Your task to perform on an android device: open app "Truecaller" (install if not already installed) and enter user name: "coauthor@gmail.com" and password: "quadrangle" Image 0: 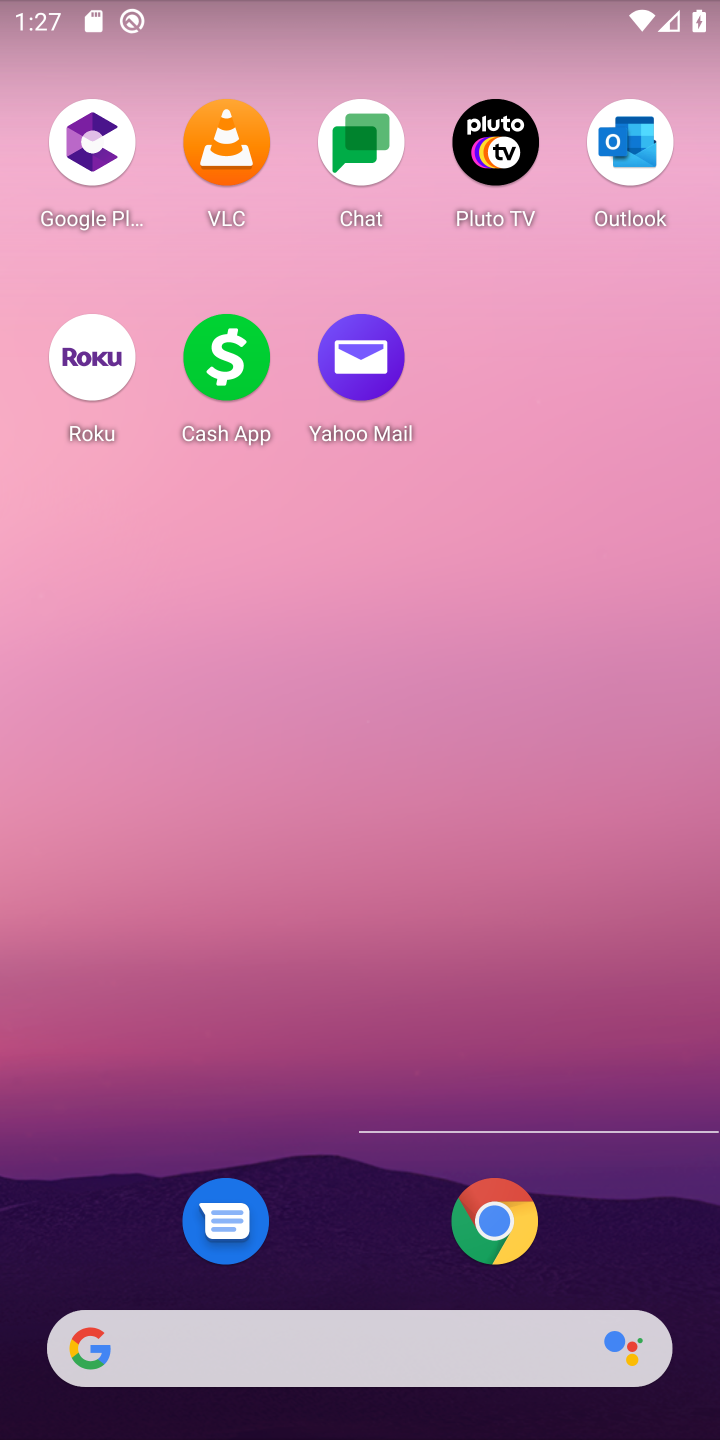
Step 0: press home button
Your task to perform on an android device: open app "Truecaller" (install if not already installed) and enter user name: "coauthor@gmail.com" and password: "quadrangle" Image 1: 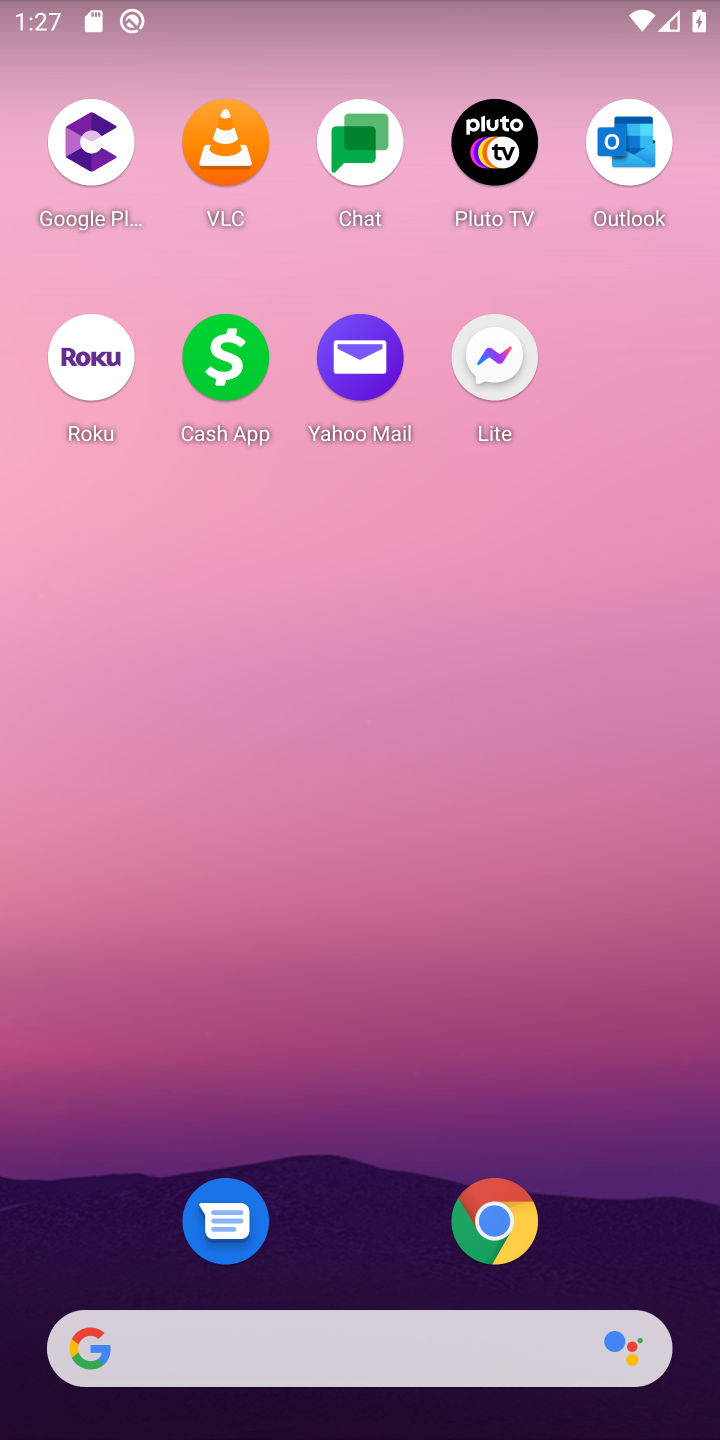
Step 1: press home button
Your task to perform on an android device: open app "Truecaller" (install if not already installed) and enter user name: "coauthor@gmail.com" and password: "quadrangle" Image 2: 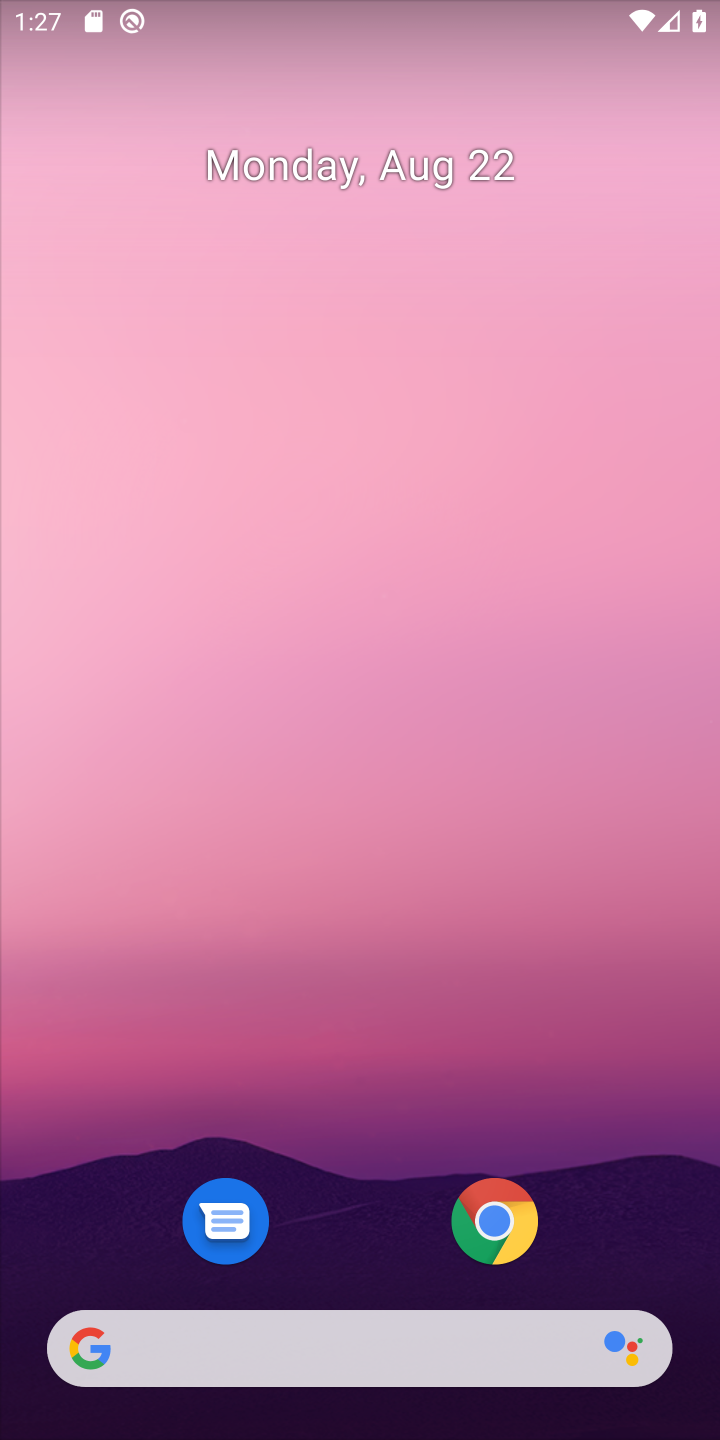
Step 2: drag from (353, 1244) to (270, 22)
Your task to perform on an android device: open app "Truecaller" (install if not already installed) and enter user name: "coauthor@gmail.com" and password: "quadrangle" Image 3: 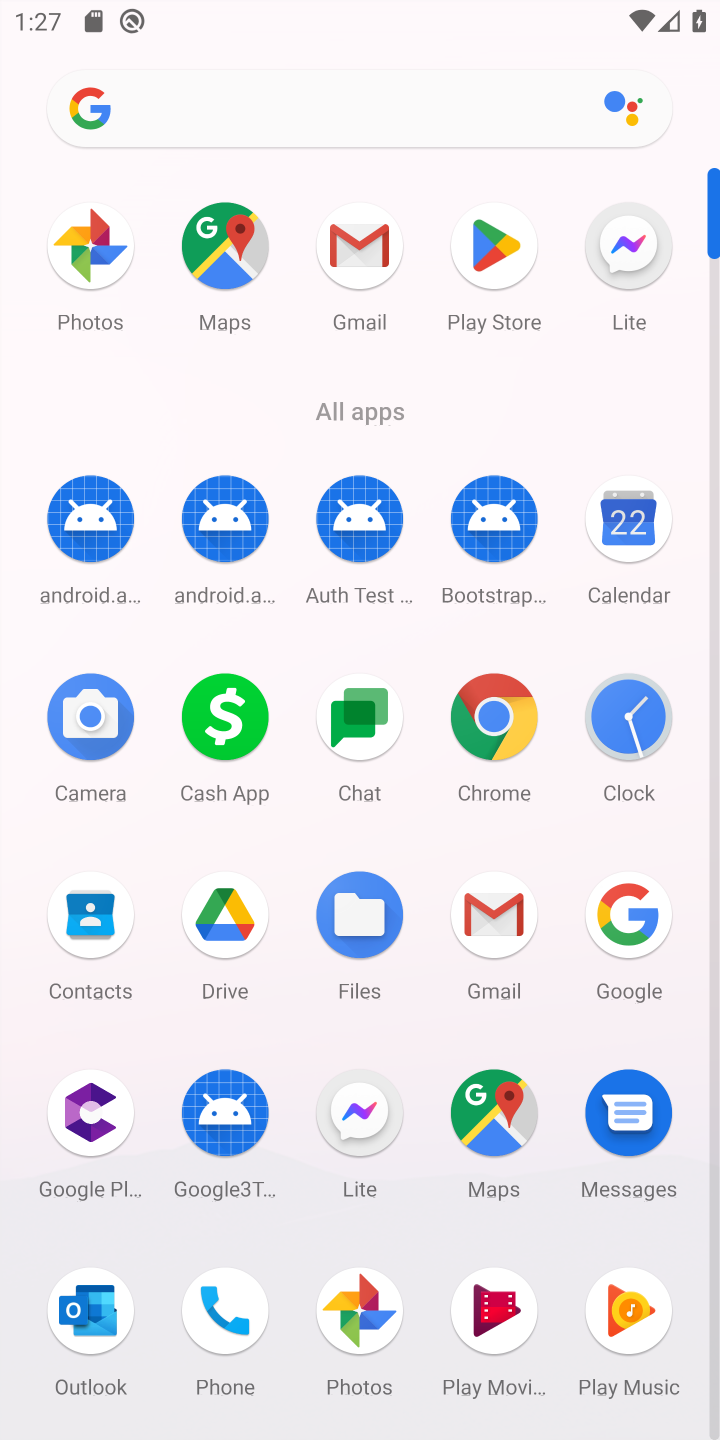
Step 3: click (490, 240)
Your task to perform on an android device: open app "Truecaller" (install if not already installed) and enter user name: "coauthor@gmail.com" and password: "quadrangle" Image 4: 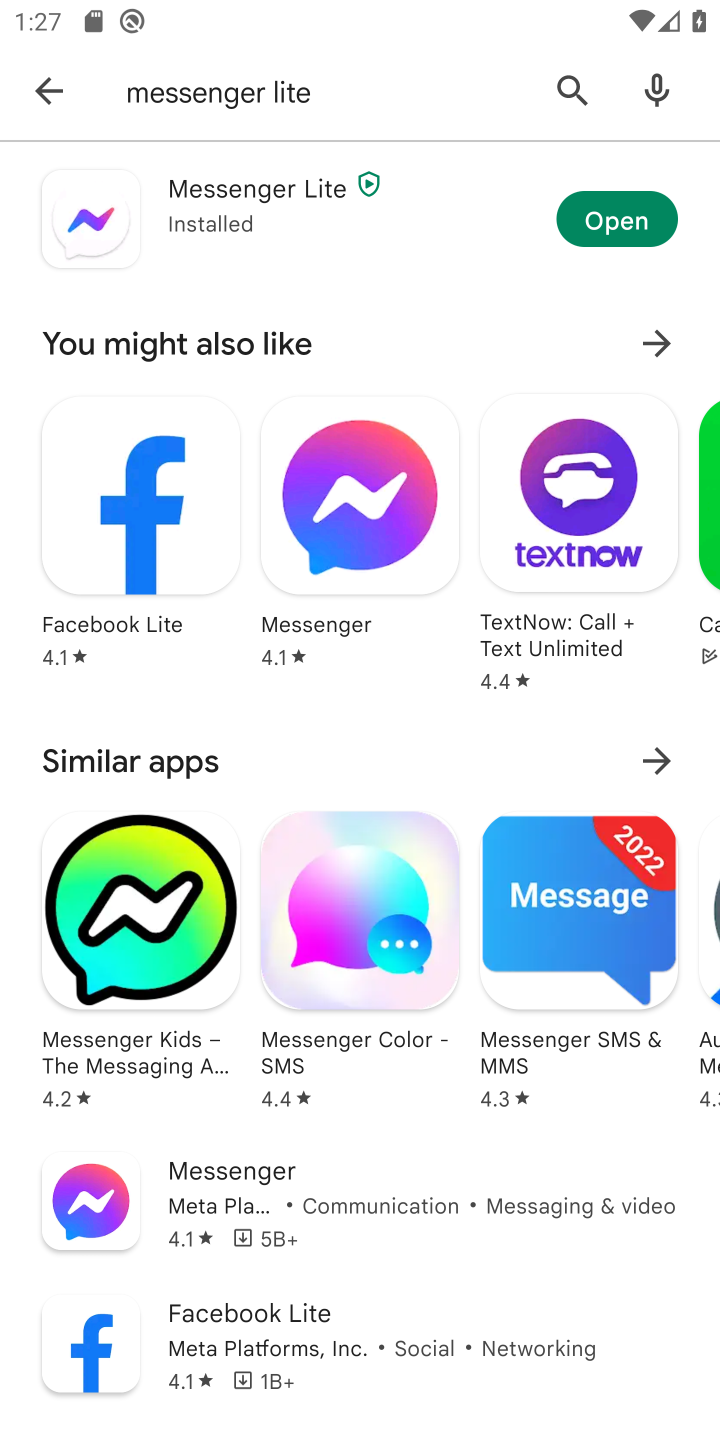
Step 4: click (570, 87)
Your task to perform on an android device: open app "Truecaller" (install if not already installed) and enter user name: "coauthor@gmail.com" and password: "quadrangle" Image 5: 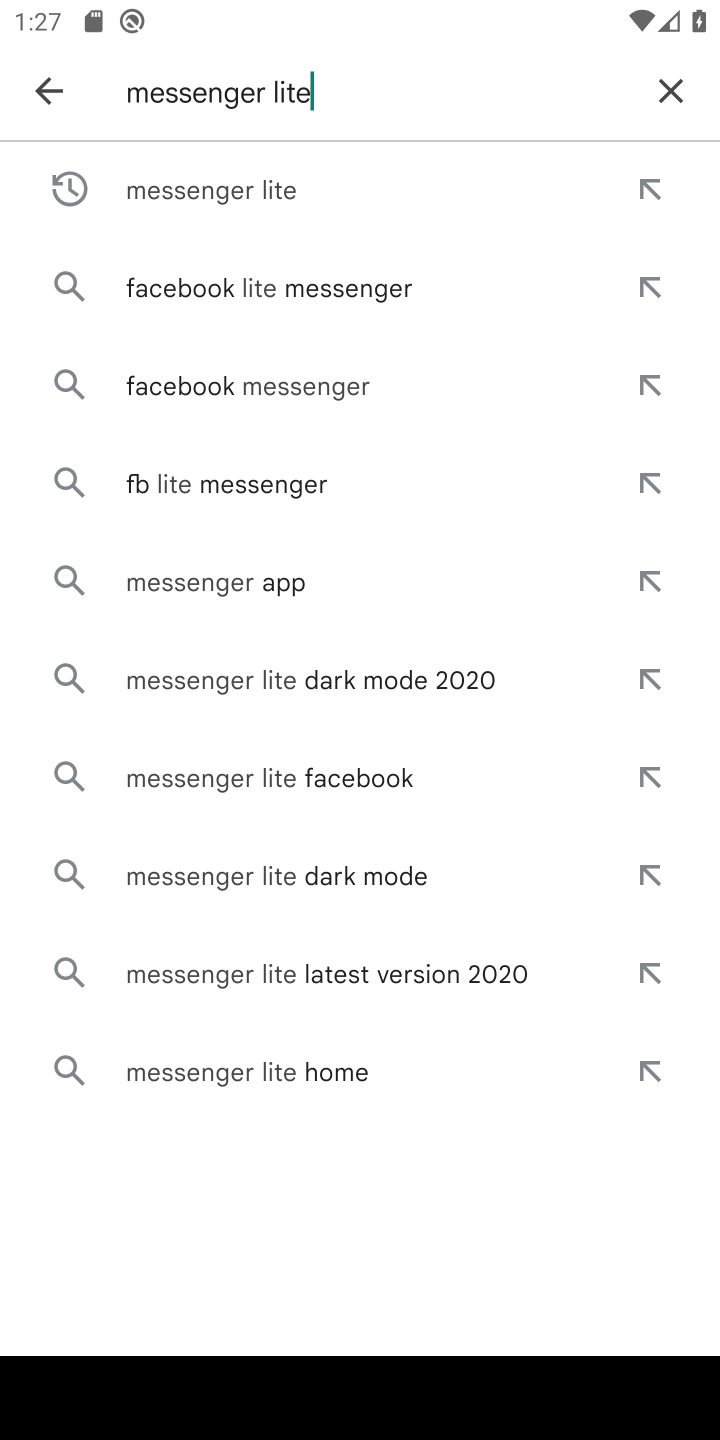
Step 5: click (673, 87)
Your task to perform on an android device: open app "Truecaller" (install if not already installed) and enter user name: "coauthor@gmail.com" and password: "quadrangle" Image 6: 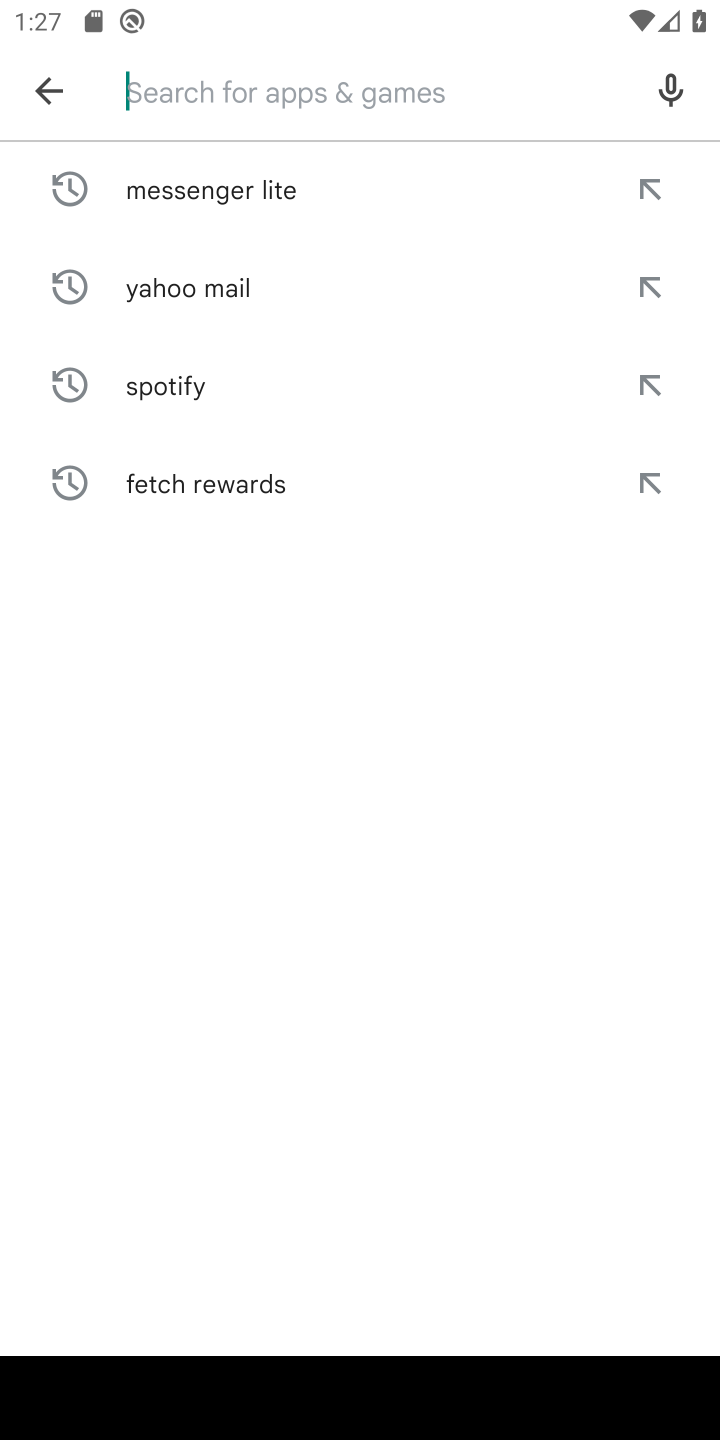
Step 6: type "Truecaller"
Your task to perform on an android device: open app "Truecaller" (install if not already installed) and enter user name: "coauthor@gmail.com" and password: "quadrangle" Image 7: 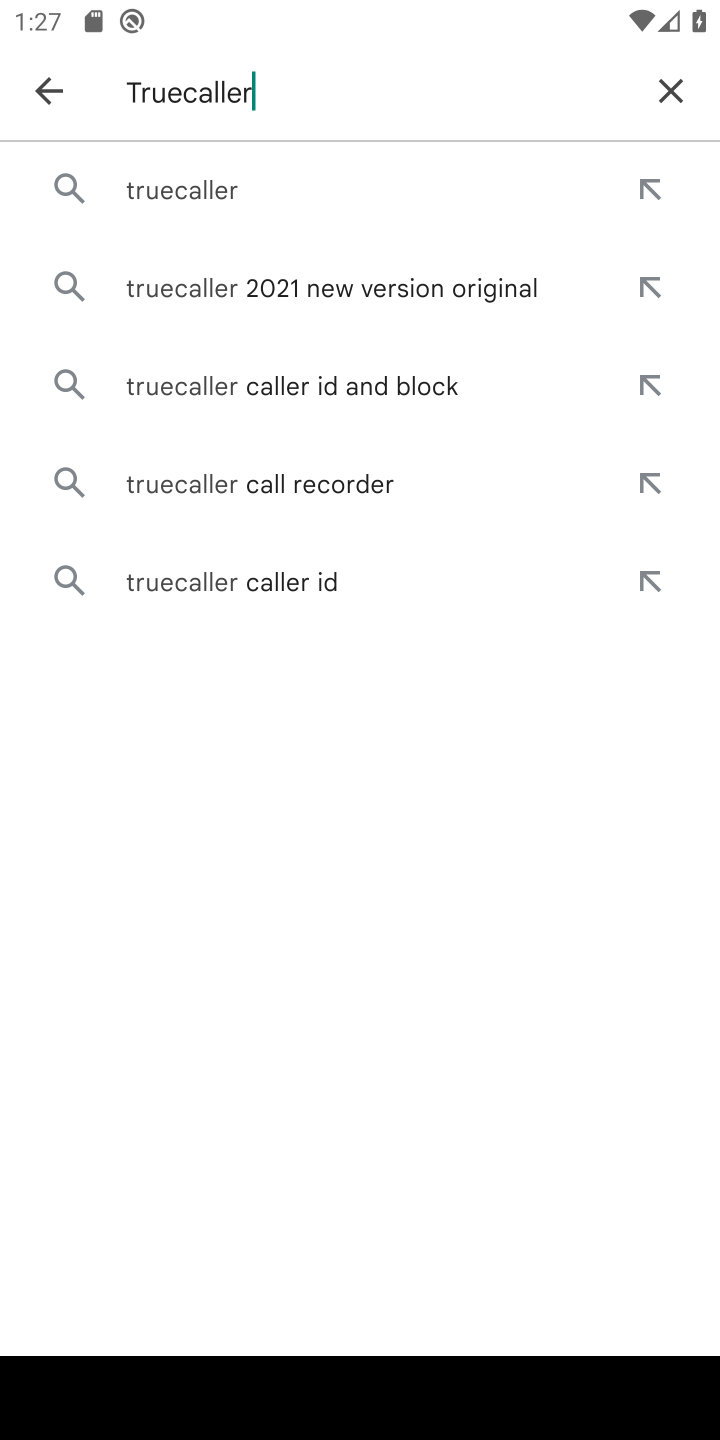
Step 7: click (242, 187)
Your task to perform on an android device: open app "Truecaller" (install if not already installed) and enter user name: "coauthor@gmail.com" and password: "quadrangle" Image 8: 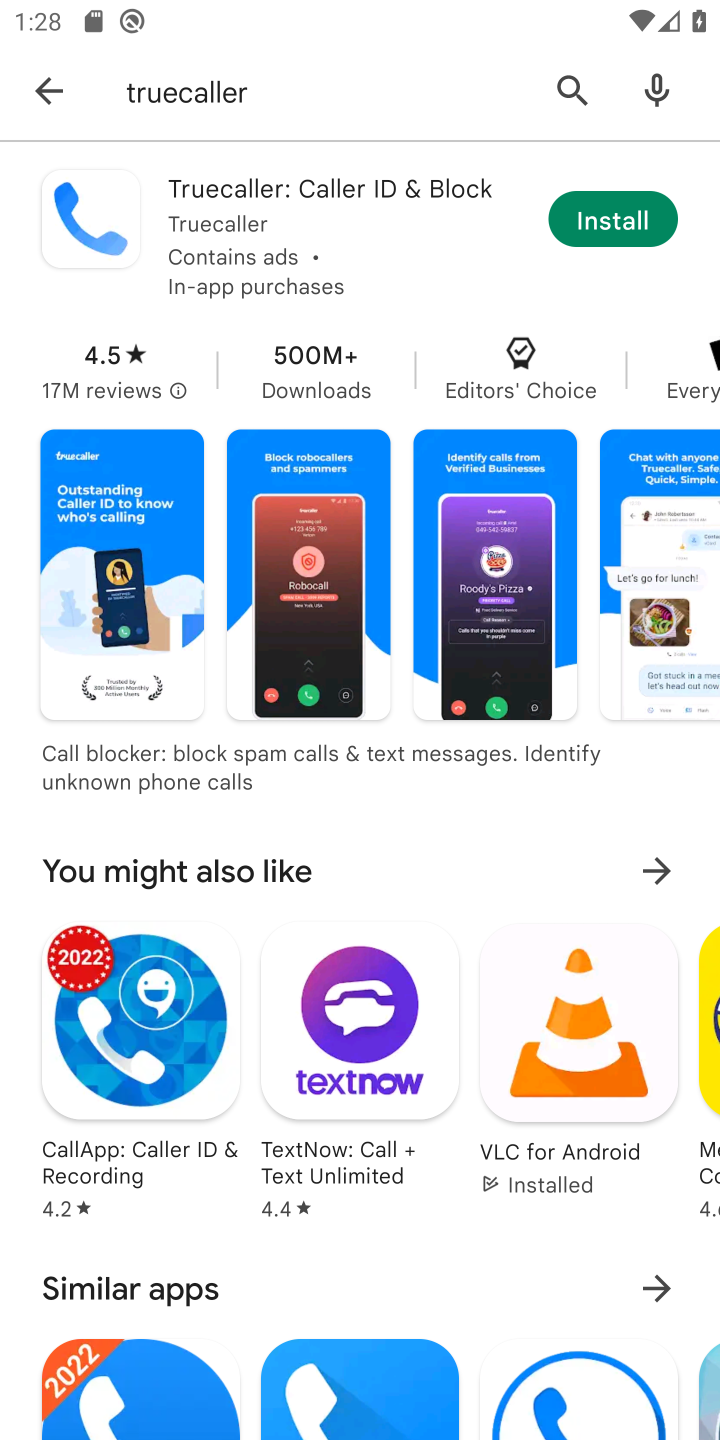
Step 8: click (570, 214)
Your task to perform on an android device: open app "Truecaller" (install if not already installed) and enter user name: "coauthor@gmail.com" and password: "quadrangle" Image 9: 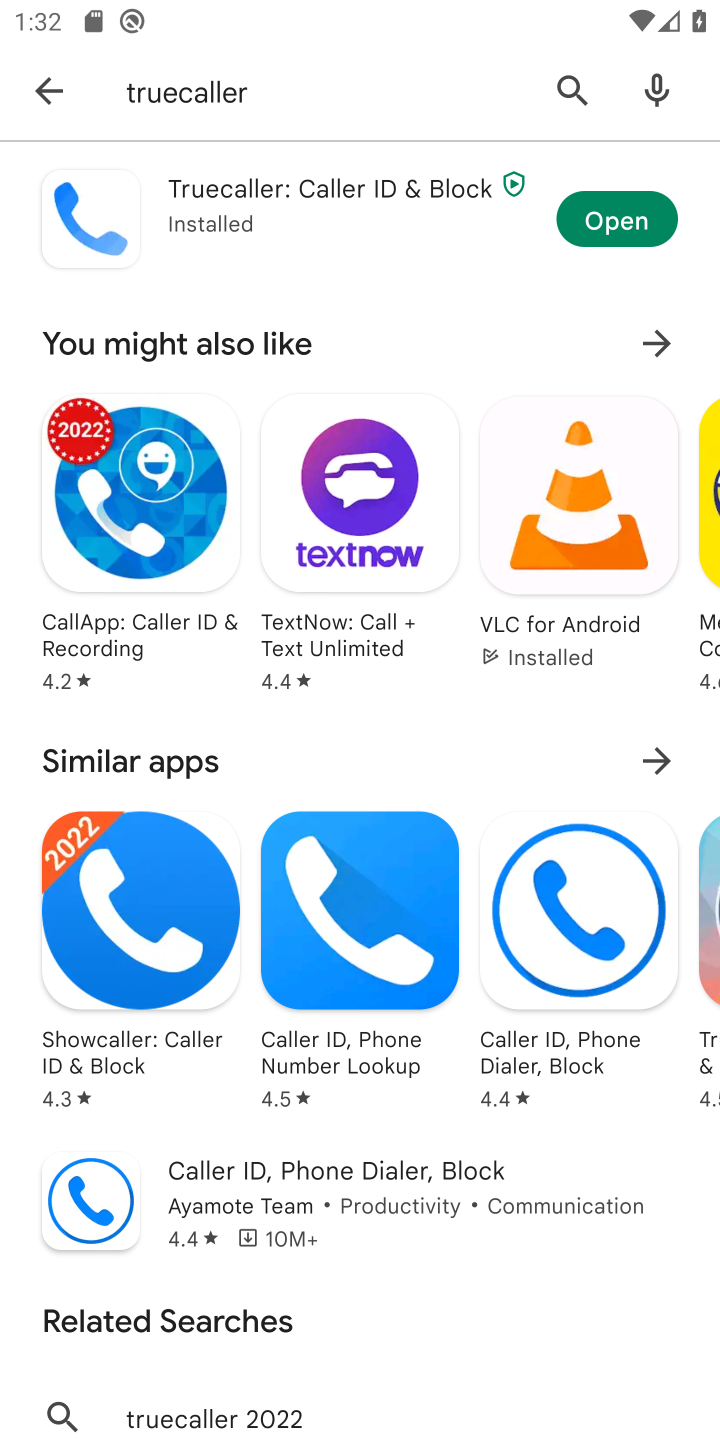
Step 9: click (594, 216)
Your task to perform on an android device: open app "Truecaller" (install if not already installed) and enter user name: "coauthor@gmail.com" and password: "quadrangle" Image 10: 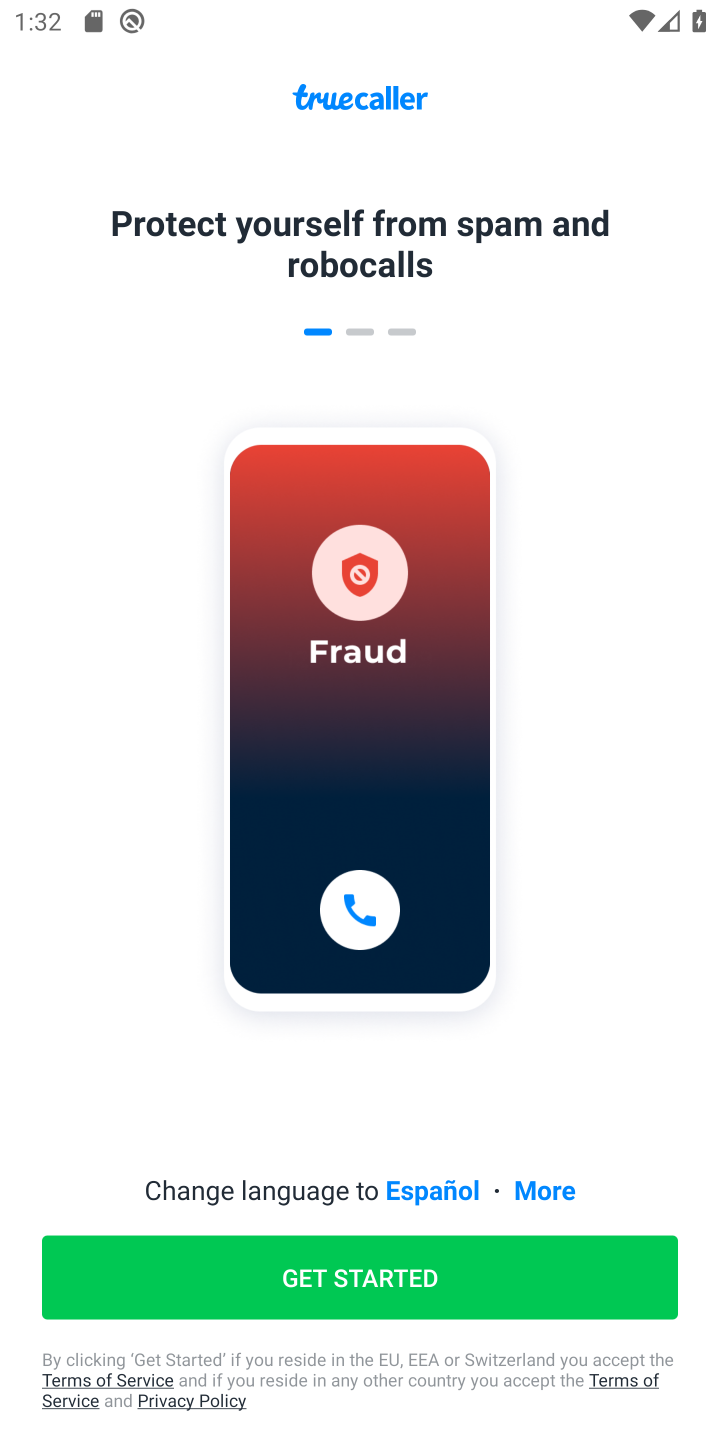
Step 10: click (356, 1283)
Your task to perform on an android device: open app "Truecaller" (install if not already installed) and enter user name: "coauthor@gmail.com" and password: "quadrangle" Image 11: 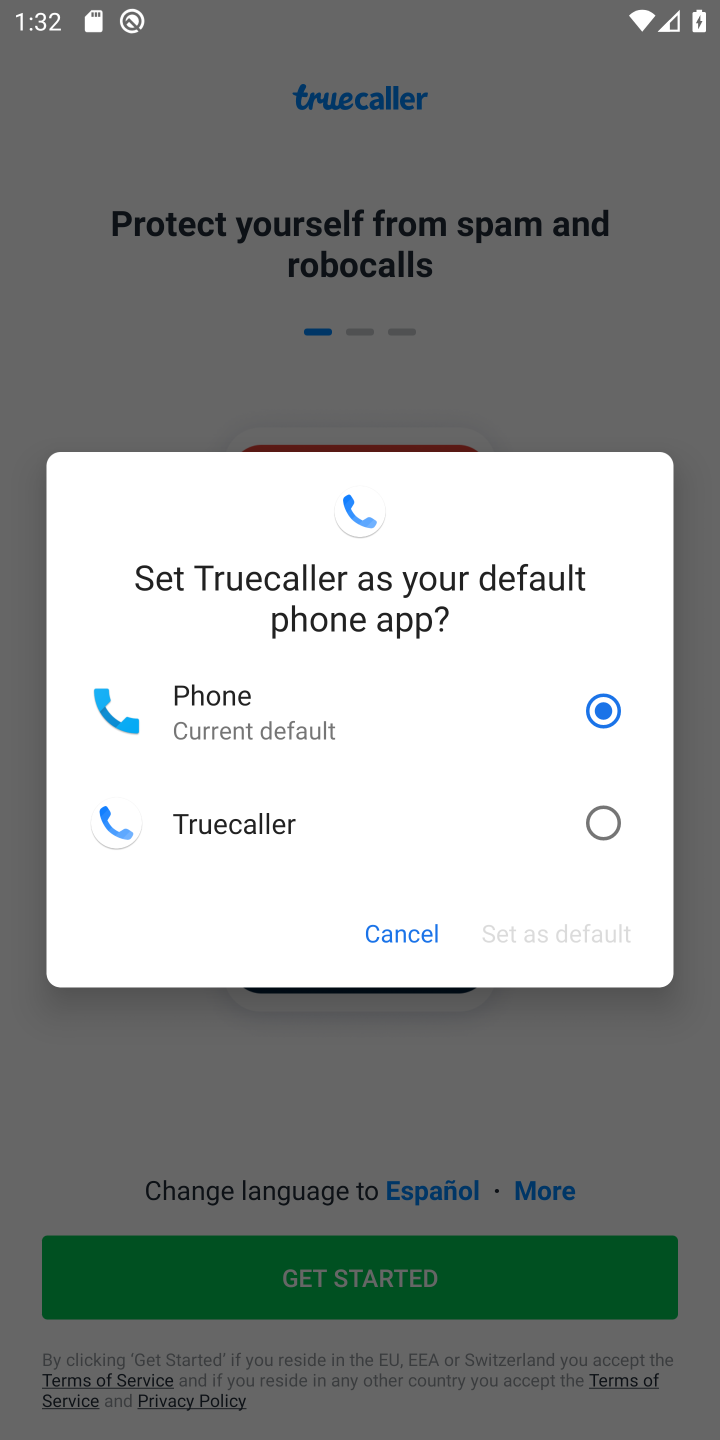
Step 11: click (606, 825)
Your task to perform on an android device: open app "Truecaller" (install if not already installed) and enter user name: "coauthor@gmail.com" and password: "quadrangle" Image 12: 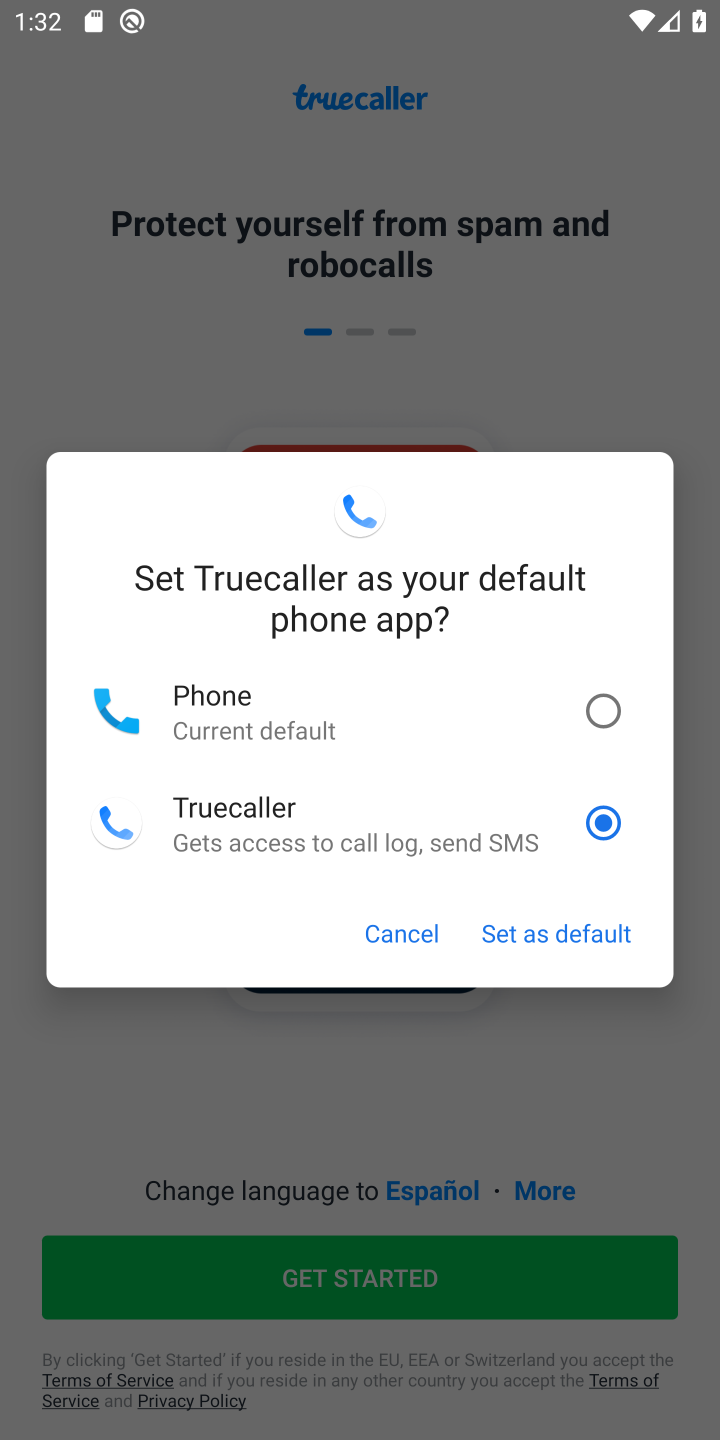
Step 12: click (561, 928)
Your task to perform on an android device: open app "Truecaller" (install if not already installed) and enter user name: "coauthor@gmail.com" and password: "quadrangle" Image 13: 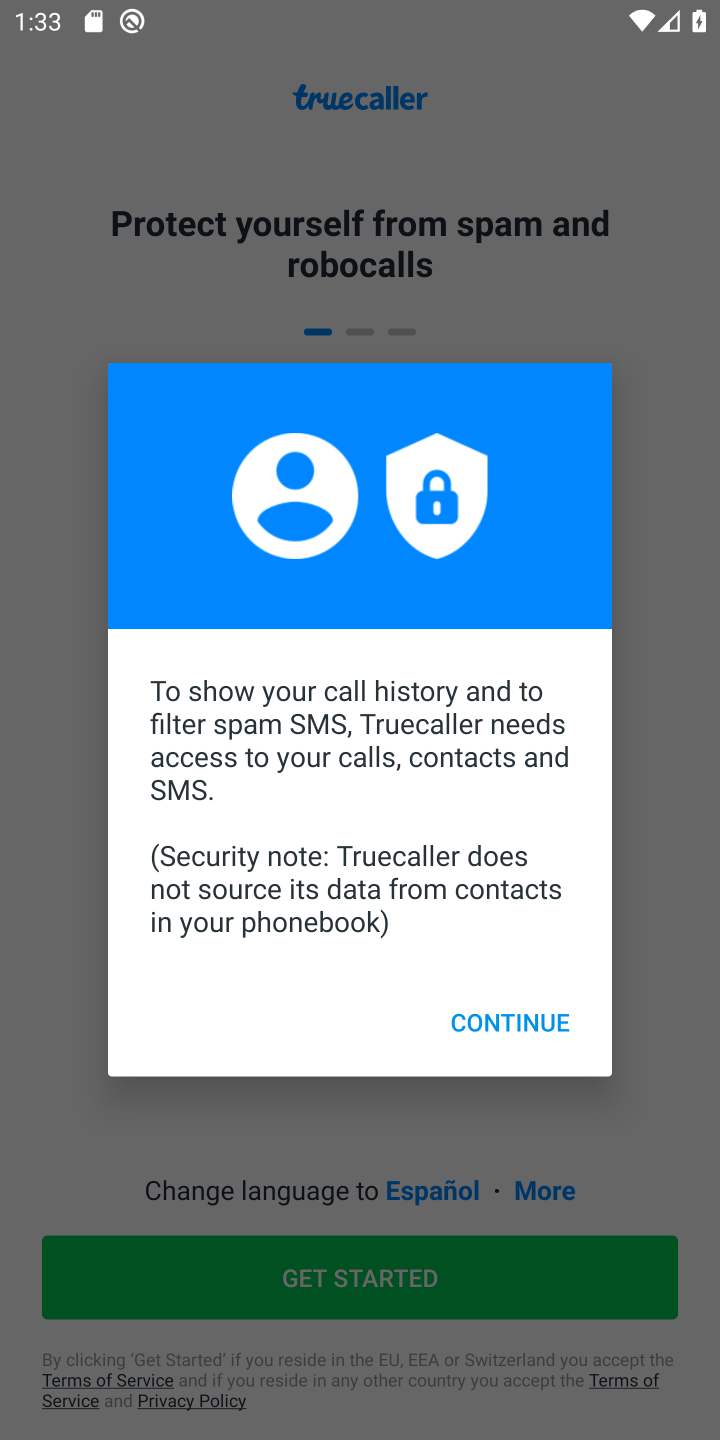
Step 13: click (496, 1015)
Your task to perform on an android device: open app "Truecaller" (install if not already installed) and enter user name: "coauthor@gmail.com" and password: "quadrangle" Image 14: 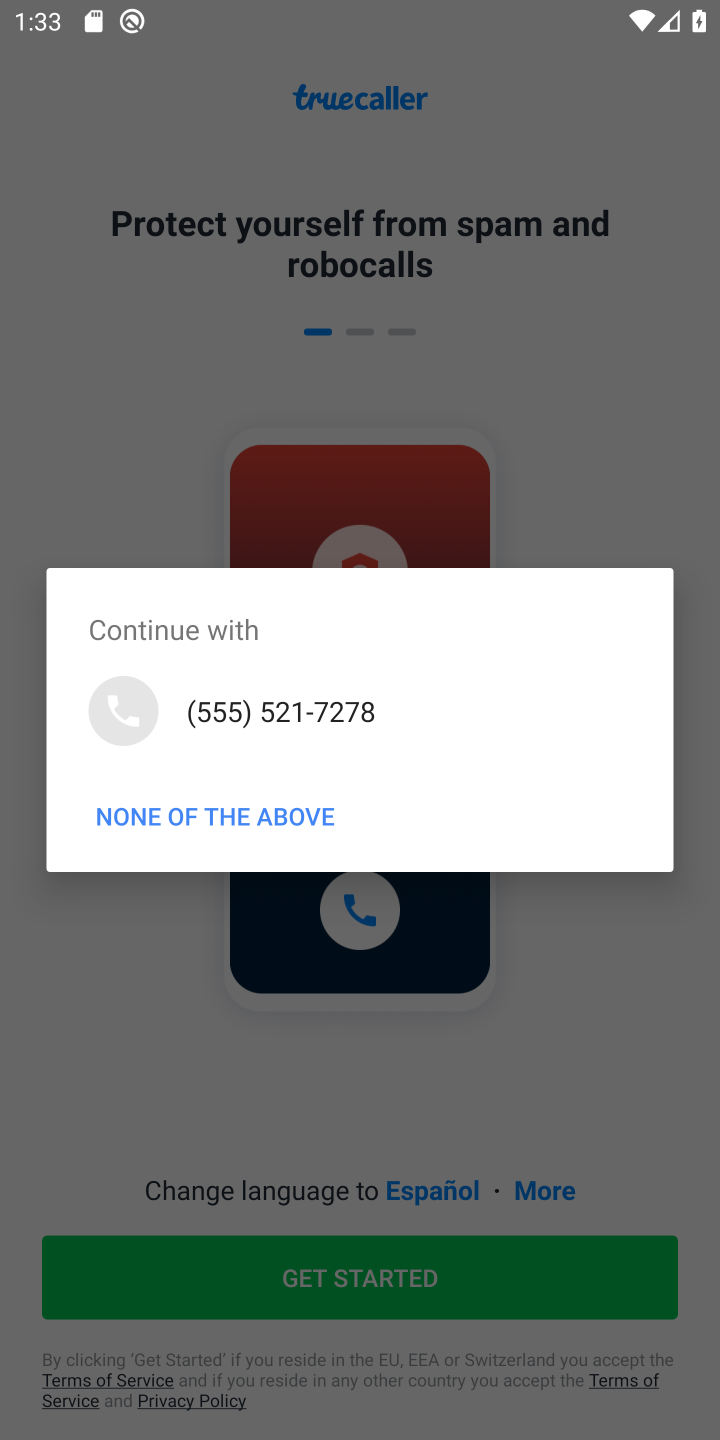
Step 14: click (275, 808)
Your task to perform on an android device: open app "Truecaller" (install if not already installed) and enter user name: "coauthor@gmail.com" and password: "quadrangle" Image 15: 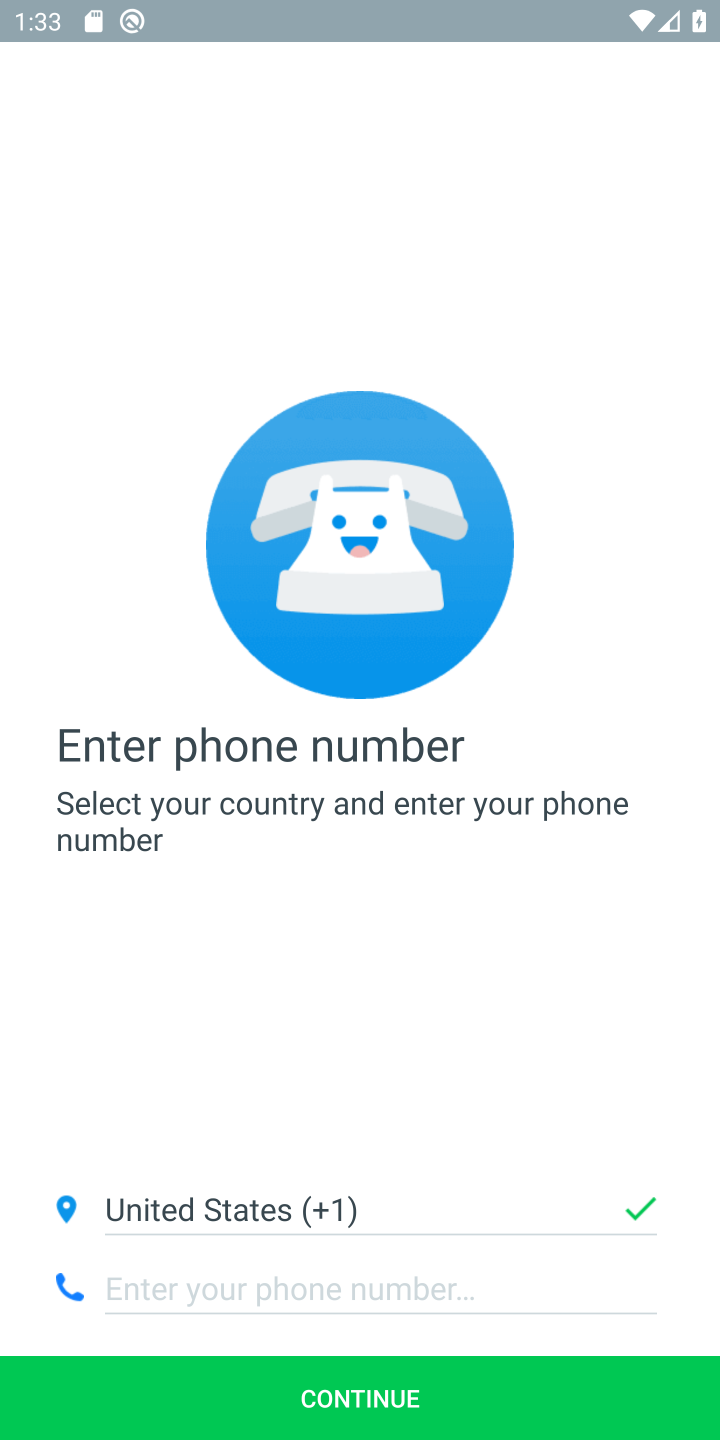
Step 15: task complete